Your task to perform on an android device: Show me recent news Image 0: 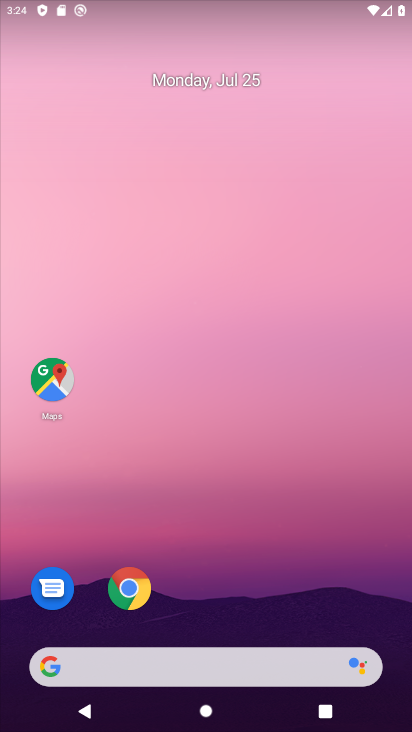
Step 0: drag from (26, 315) to (411, 328)
Your task to perform on an android device: Show me recent news Image 1: 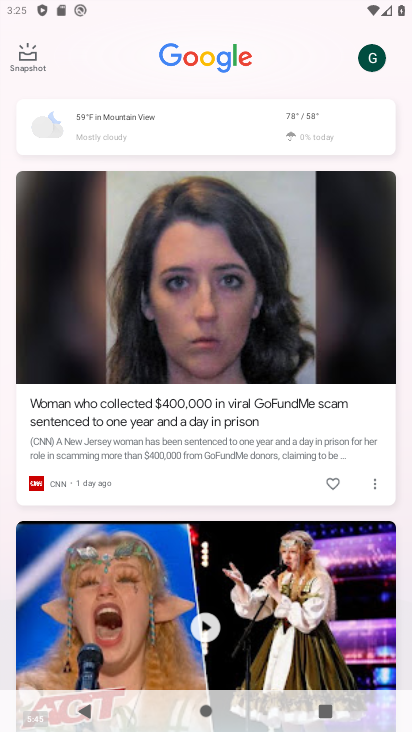
Step 1: task complete